Your task to perform on an android device: Go to ESPN.com Image 0: 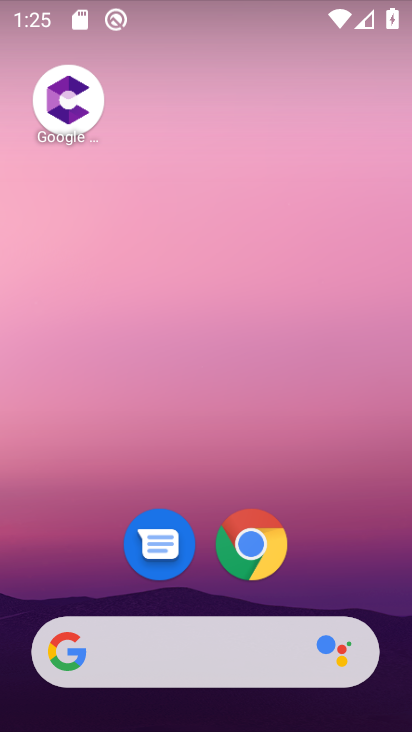
Step 0: click (117, 656)
Your task to perform on an android device: Go to ESPN.com Image 1: 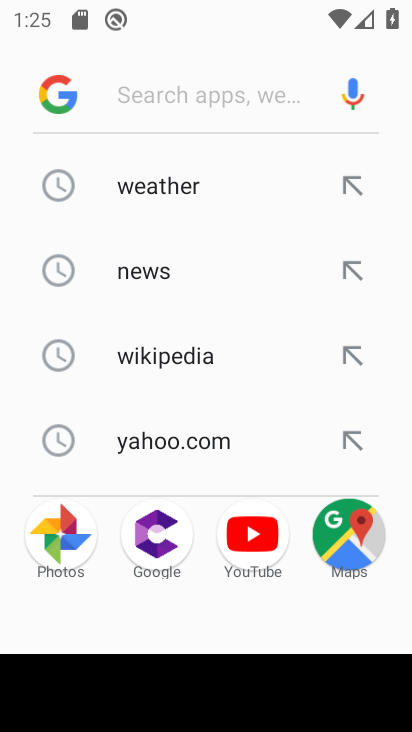
Step 1: type "ESPN.com"
Your task to perform on an android device: Go to ESPN.com Image 2: 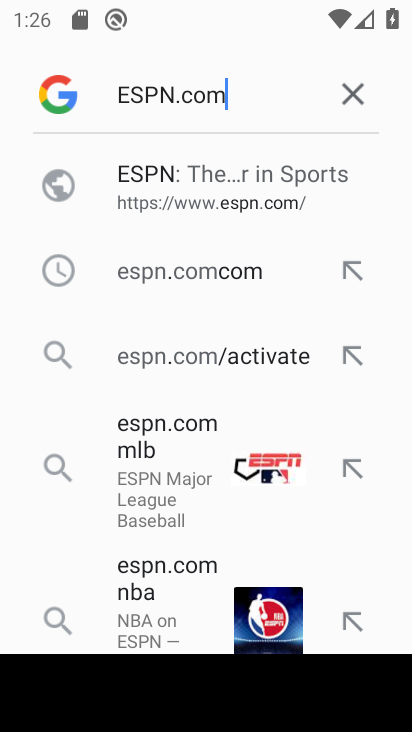
Step 2: click (292, 192)
Your task to perform on an android device: Go to ESPN.com Image 3: 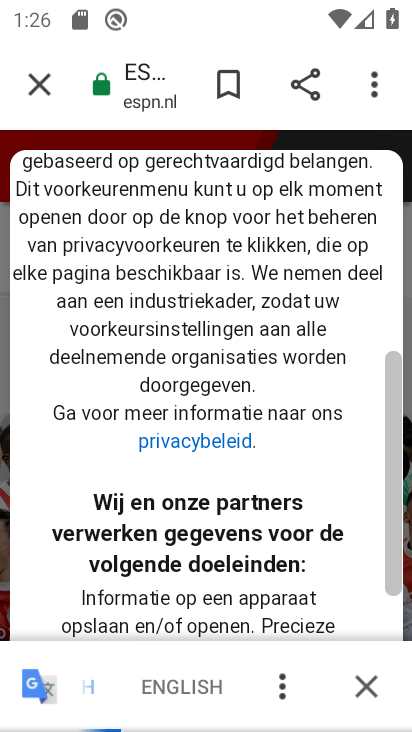
Step 3: task complete